Your task to perform on an android device: see creations saved in the google photos Image 0: 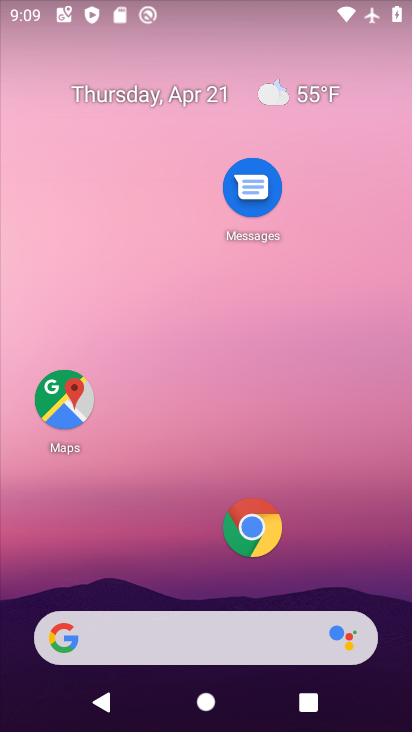
Step 0: drag from (185, 526) to (302, 75)
Your task to perform on an android device: see creations saved in the google photos Image 1: 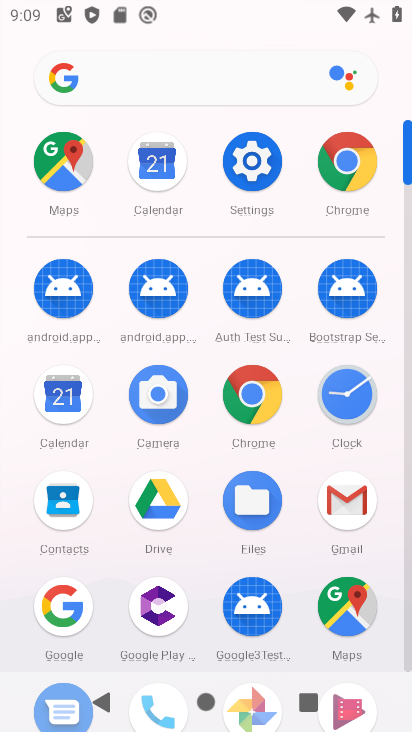
Step 1: drag from (229, 556) to (400, 85)
Your task to perform on an android device: see creations saved in the google photos Image 2: 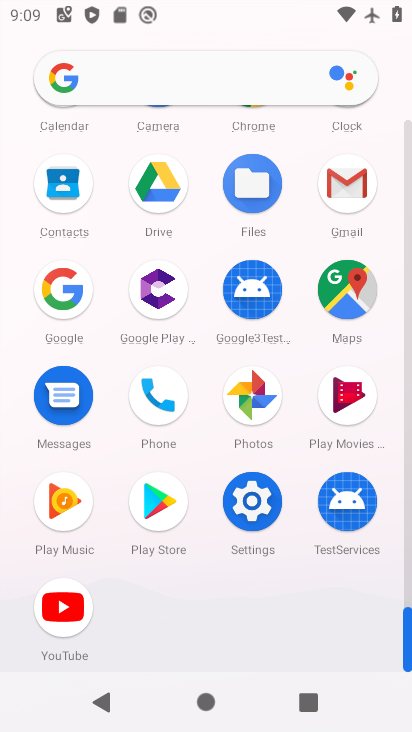
Step 2: click (261, 405)
Your task to perform on an android device: see creations saved in the google photos Image 3: 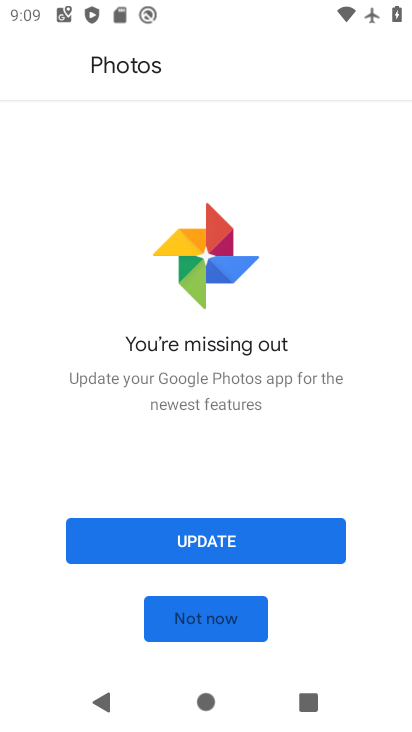
Step 3: click (195, 626)
Your task to perform on an android device: see creations saved in the google photos Image 4: 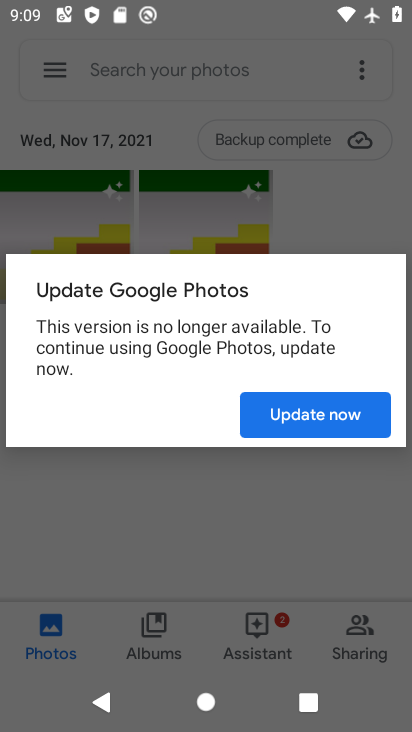
Step 4: click (290, 409)
Your task to perform on an android device: see creations saved in the google photos Image 5: 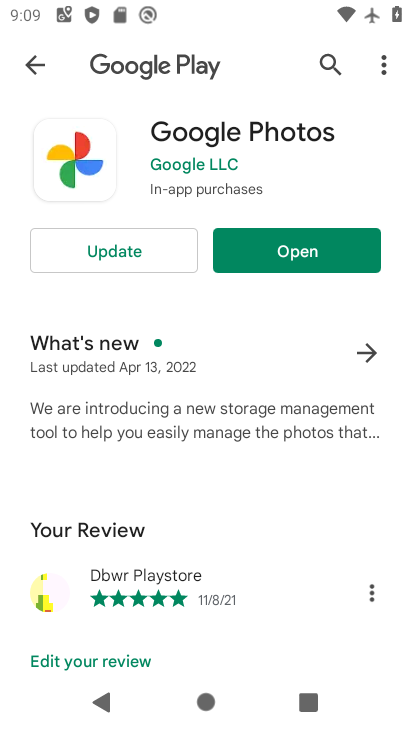
Step 5: click (329, 254)
Your task to perform on an android device: see creations saved in the google photos Image 6: 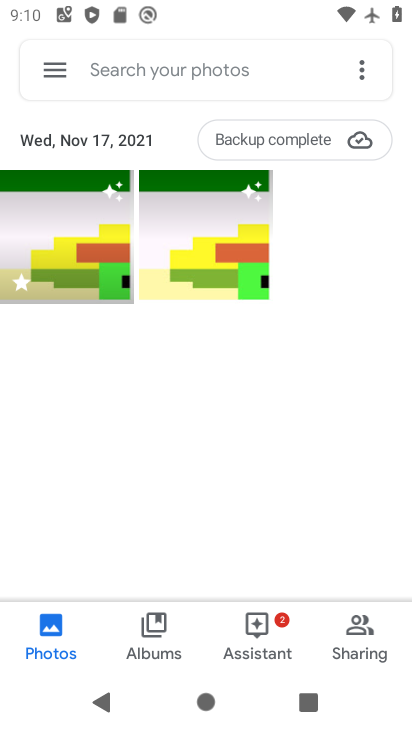
Step 6: click (147, 634)
Your task to perform on an android device: see creations saved in the google photos Image 7: 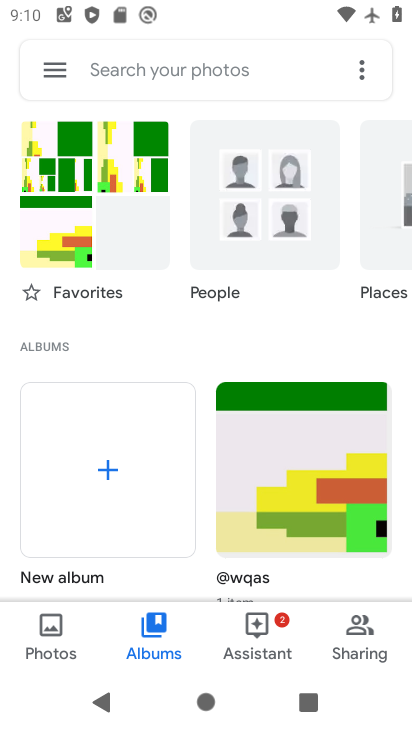
Step 7: click (215, 63)
Your task to perform on an android device: see creations saved in the google photos Image 8: 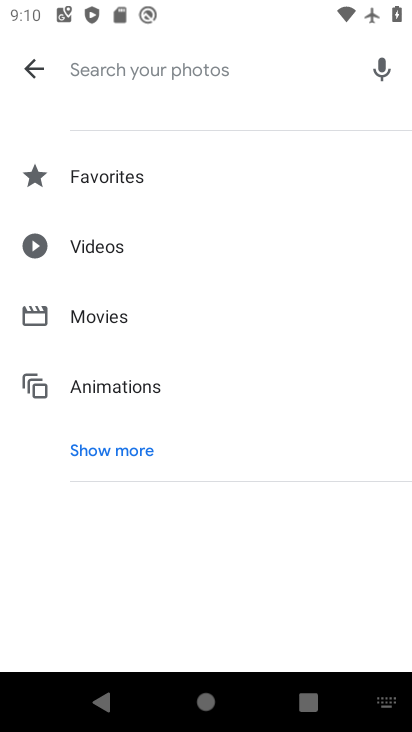
Step 8: click (115, 446)
Your task to perform on an android device: see creations saved in the google photos Image 9: 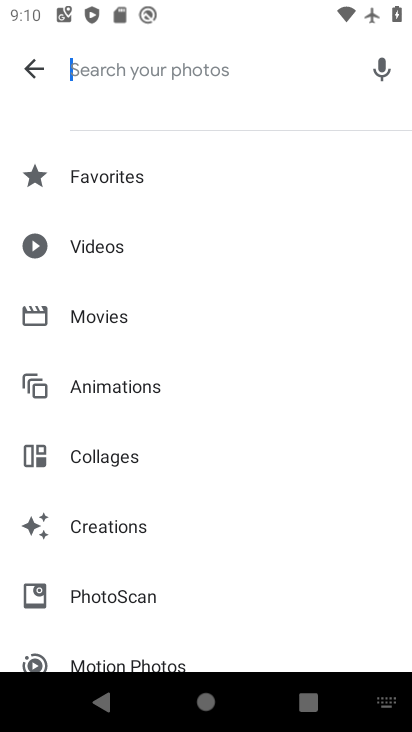
Step 9: click (116, 526)
Your task to perform on an android device: see creations saved in the google photos Image 10: 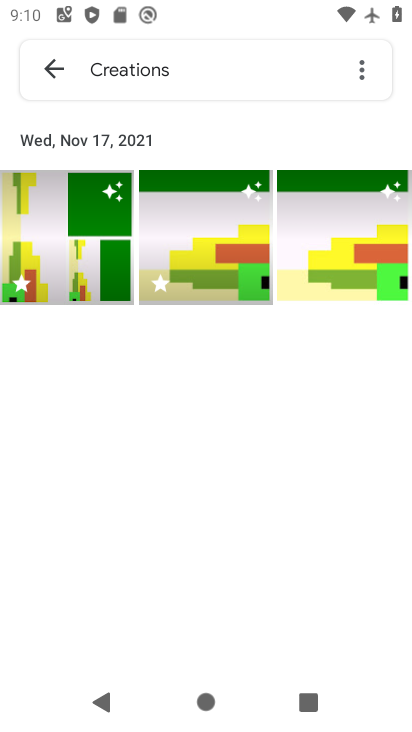
Step 10: task complete